Your task to perform on an android device: Open Reddit.com Image 0: 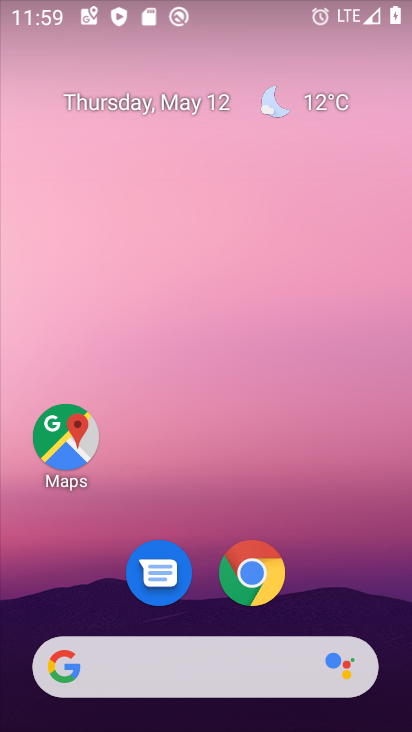
Step 0: click (240, 664)
Your task to perform on an android device: Open Reddit.com Image 1: 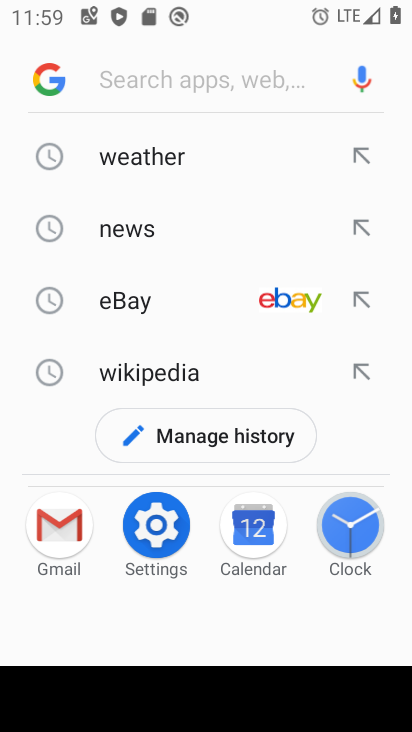
Step 1: click (225, 73)
Your task to perform on an android device: Open Reddit.com Image 2: 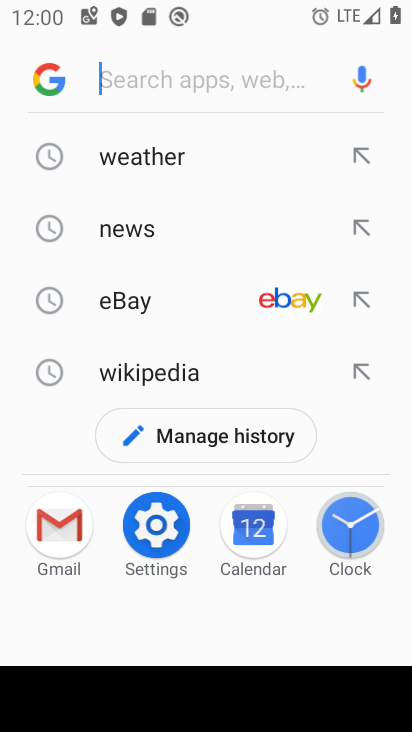
Step 2: type "reddit.com"
Your task to perform on an android device: Open Reddit.com Image 3: 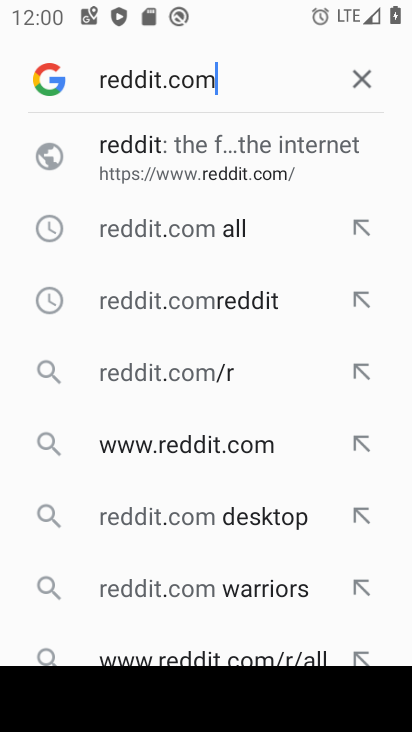
Step 3: click (263, 162)
Your task to perform on an android device: Open Reddit.com Image 4: 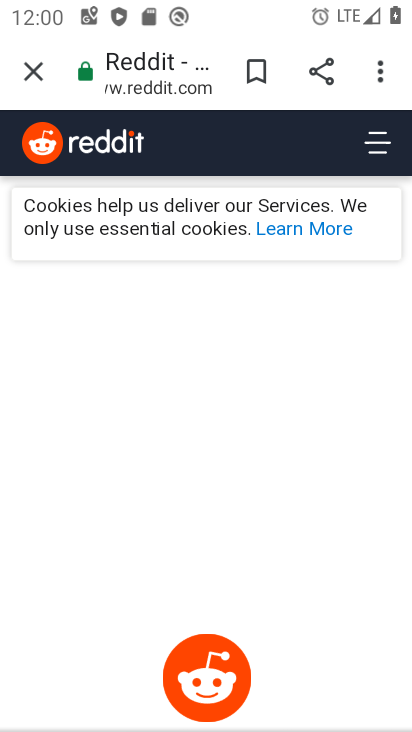
Step 4: task complete